Your task to perform on an android device: Show me the alarms in the clock app Image 0: 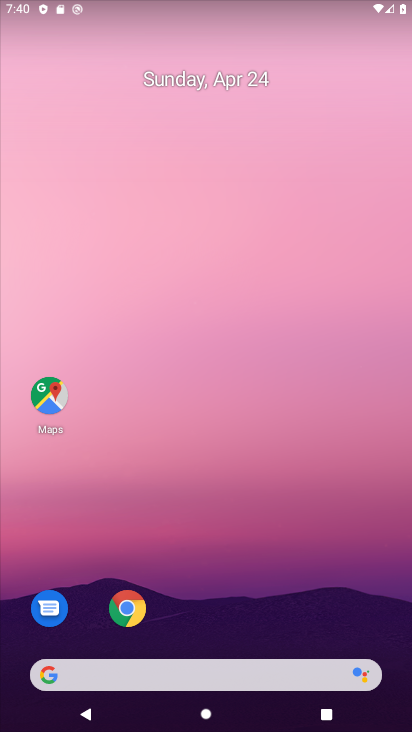
Step 0: drag from (267, 601) to (275, 98)
Your task to perform on an android device: Show me the alarms in the clock app Image 1: 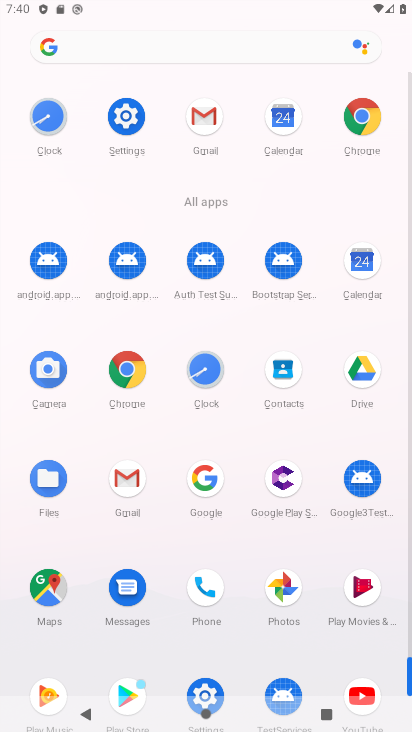
Step 1: click (210, 366)
Your task to perform on an android device: Show me the alarms in the clock app Image 2: 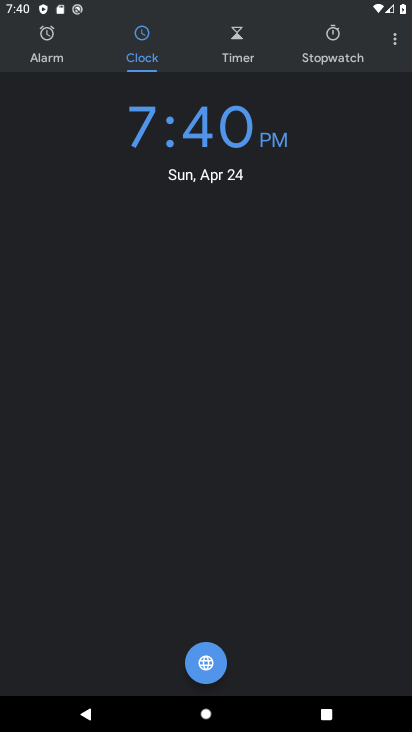
Step 2: click (48, 53)
Your task to perform on an android device: Show me the alarms in the clock app Image 3: 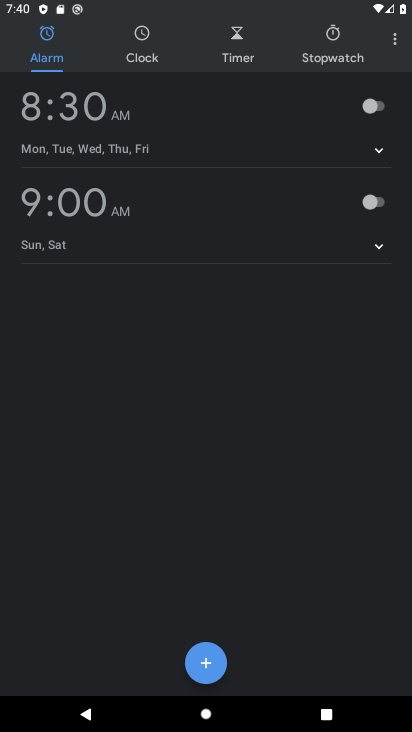
Step 3: task complete